Your task to perform on an android device: turn off javascript in the chrome app Image 0: 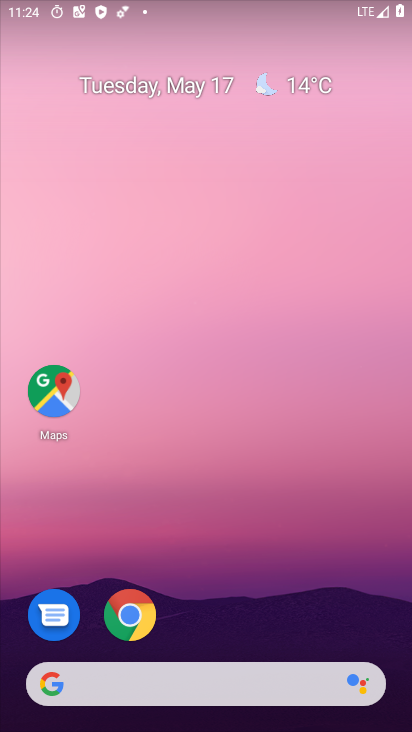
Step 0: press home button
Your task to perform on an android device: turn off javascript in the chrome app Image 1: 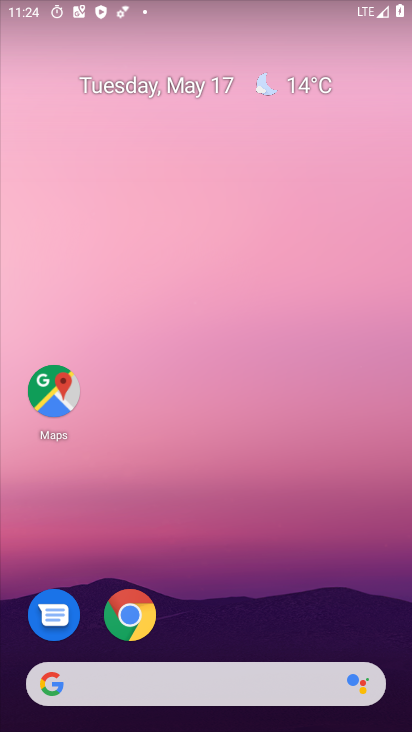
Step 1: click (142, 628)
Your task to perform on an android device: turn off javascript in the chrome app Image 2: 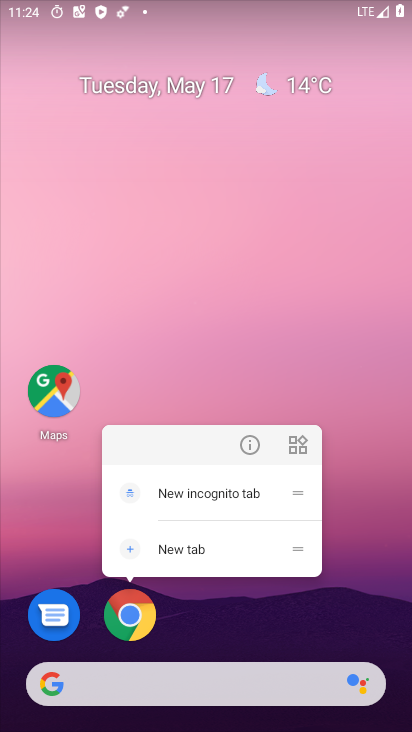
Step 2: click (140, 615)
Your task to perform on an android device: turn off javascript in the chrome app Image 3: 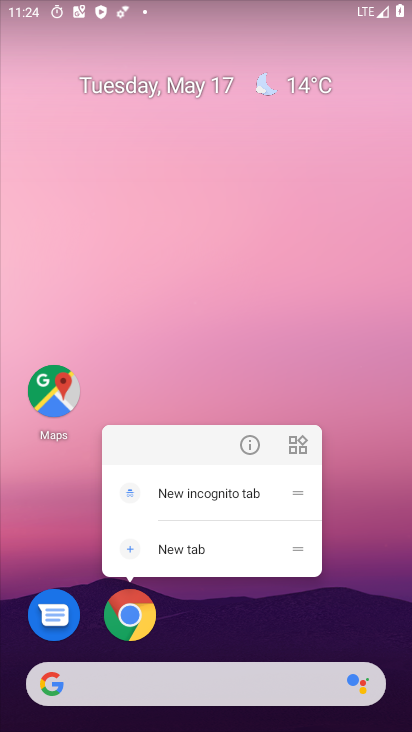
Step 3: click (134, 621)
Your task to perform on an android device: turn off javascript in the chrome app Image 4: 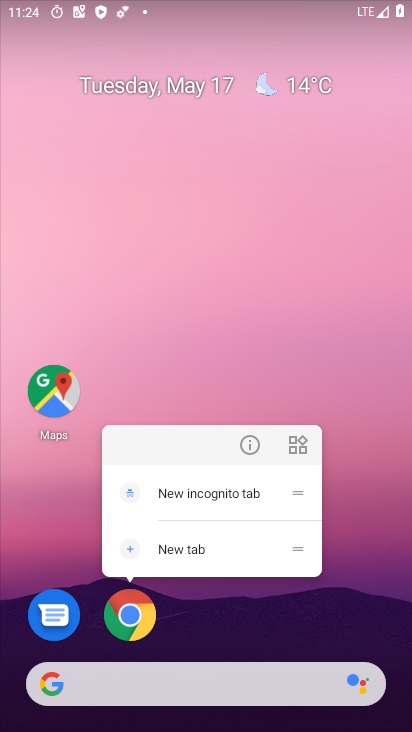
Step 4: click (127, 625)
Your task to perform on an android device: turn off javascript in the chrome app Image 5: 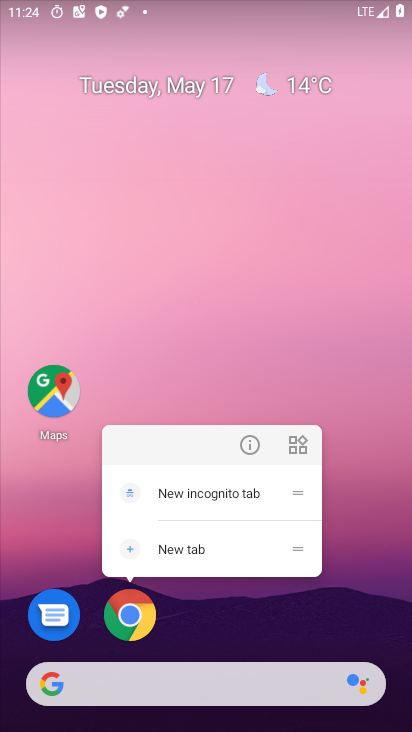
Step 5: click (143, 615)
Your task to perform on an android device: turn off javascript in the chrome app Image 6: 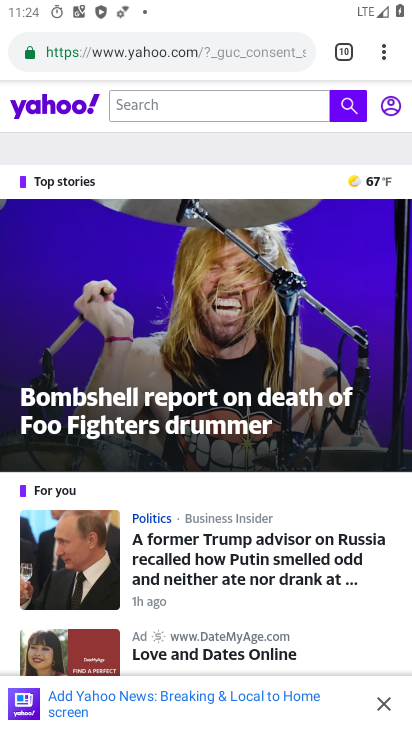
Step 6: drag from (384, 56) to (256, 628)
Your task to perform on an android device: turn off javascript in the chrome app Image 7: 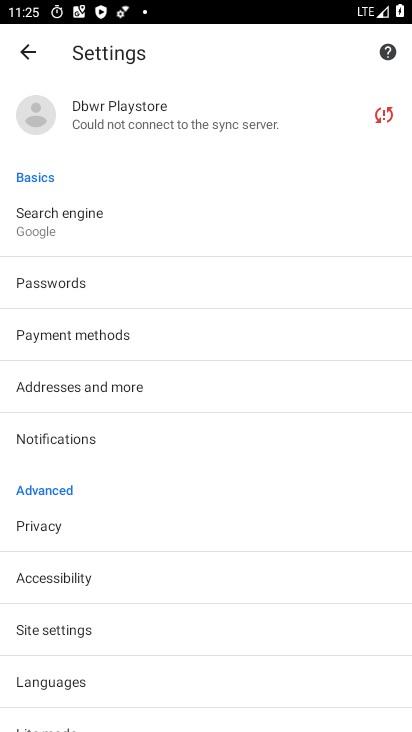
Step 7: click (40, 632)
Your task to perform on an android device: turn off javascript in the chrome app Image 8: 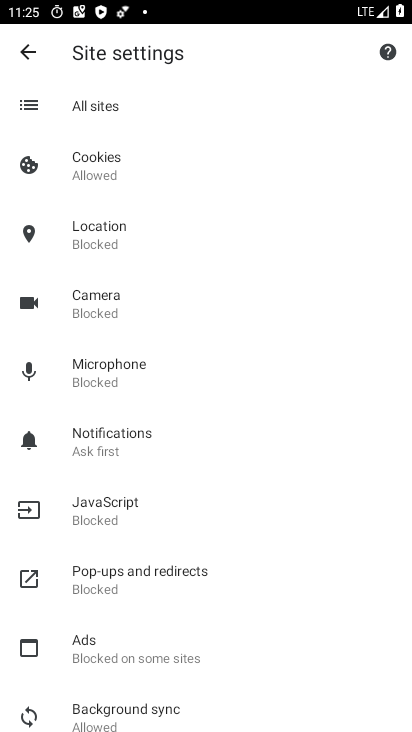
Step 8: click (115, 514)
Your task to perform on an android device: turn off javascript in the chrome app Image 9: 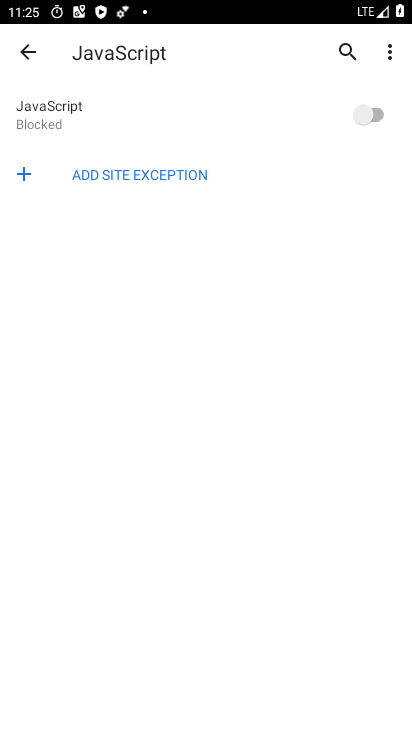
Step 9: task complete